Your task to perform on an android device: Open Android settings Image 0: 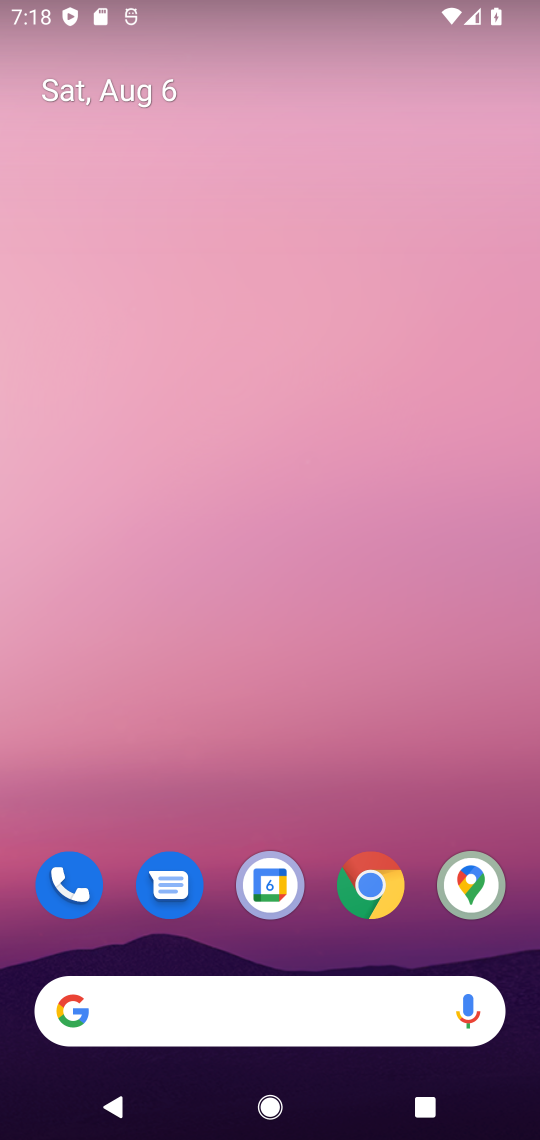
Step 0: drag from (235, 794) to (123, 17)
Your task to perform on an android device: Open Android settings Image 1: 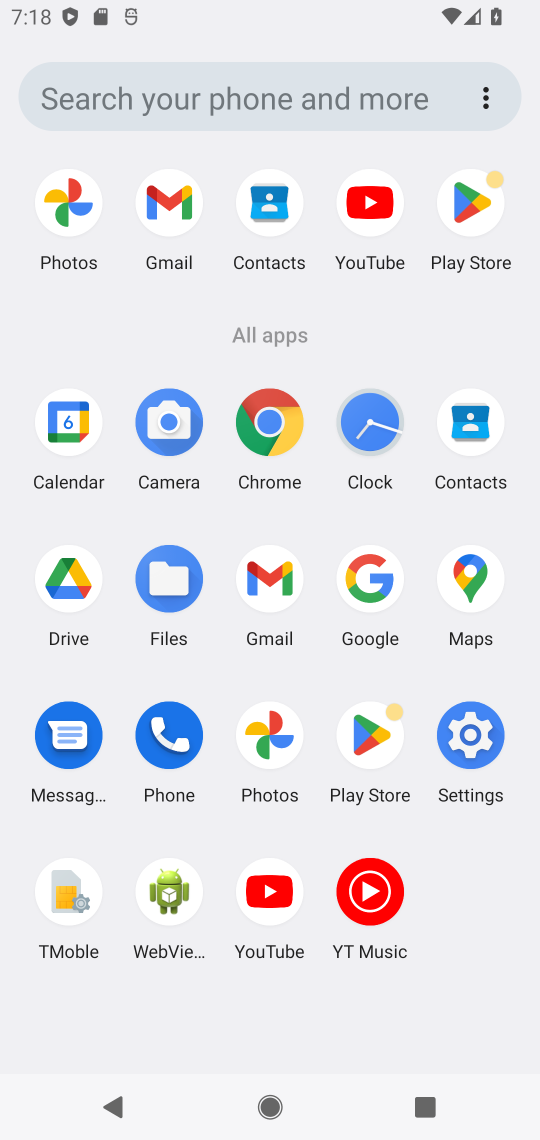
Step 1: click (469, 739)
Your task to perform on an android device: Open Android settings Image 2: 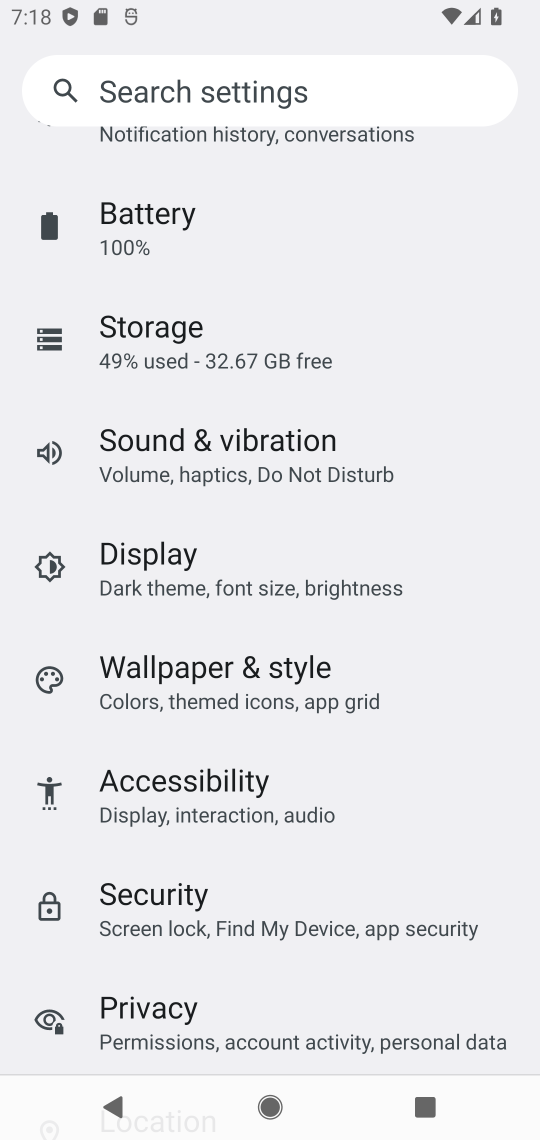
Step 2: task complete